Your task to perform on an android device: Open Google Maps Image 0: 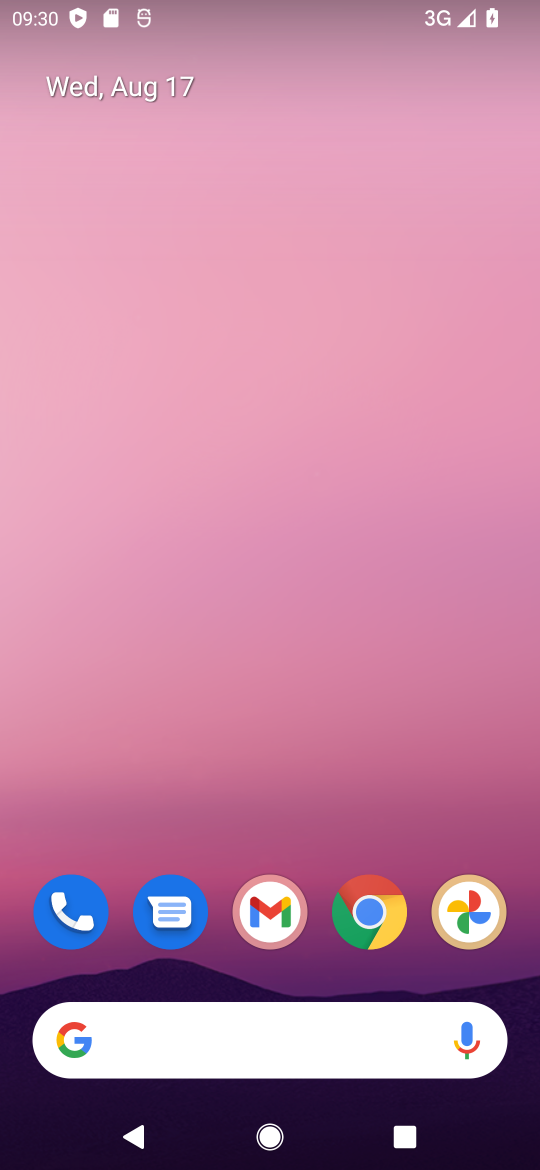
Step 0: drag from (275, 1011) to (233, 502)
Your task to perform on an android device: Open Google Maps Image 1: 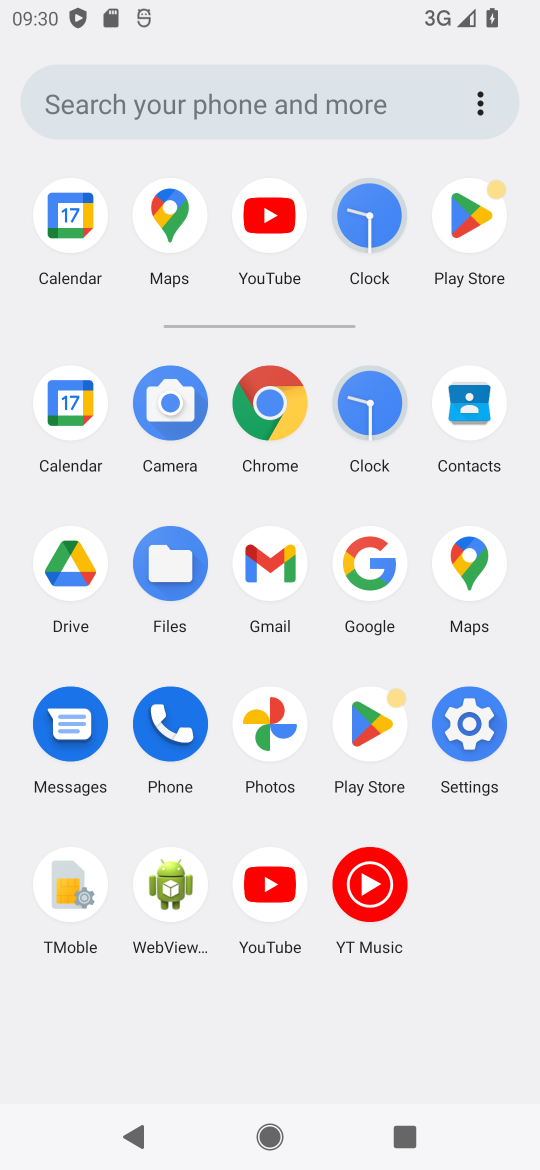
Step 1: click (462, 579)
Your task to perform on an android device: Open Google Maps Image 2: 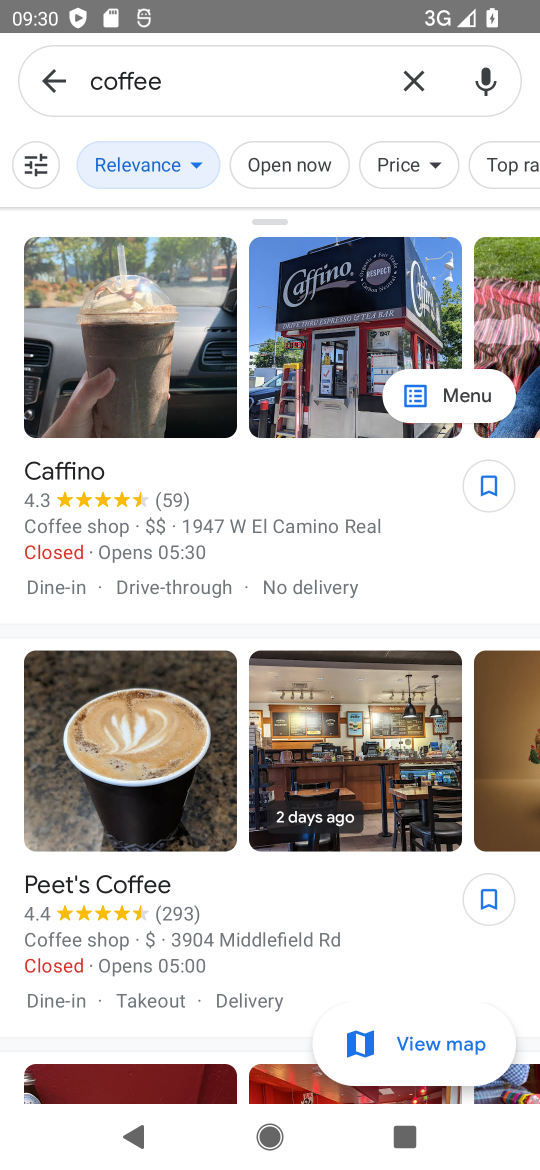
Step 2: press home button
Your task to perform on an android device: Open Google Maps Image 3: 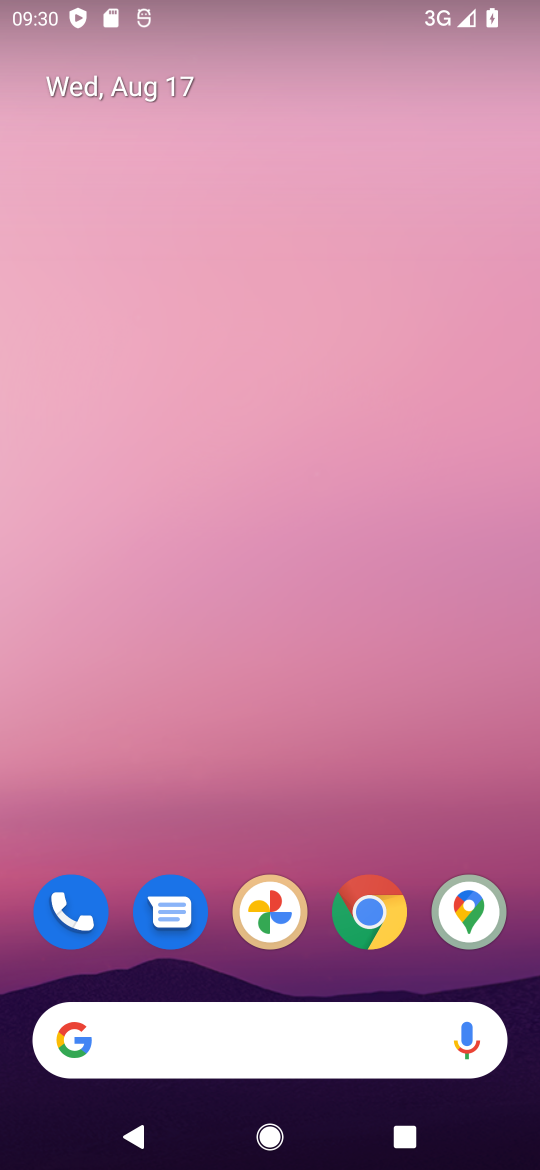
Step 3: drag from (171, 1003) to (152, 523)
Your task to perform on an android device: Open Google Maps Image 4: 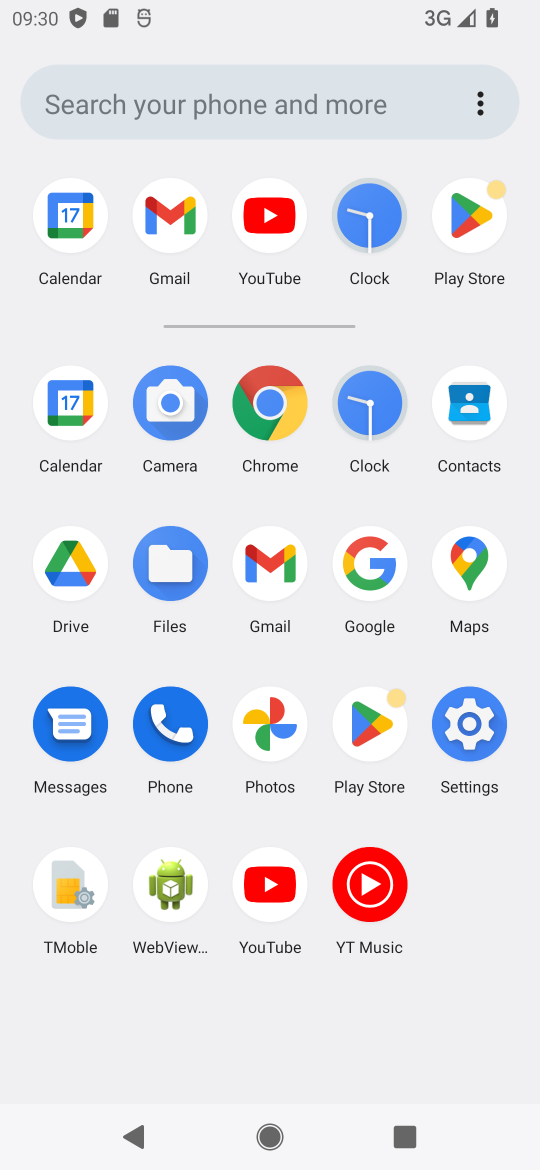
Step 4: click (468, 562)
Your task to perform on an android device: Open Google Maps Image 5: 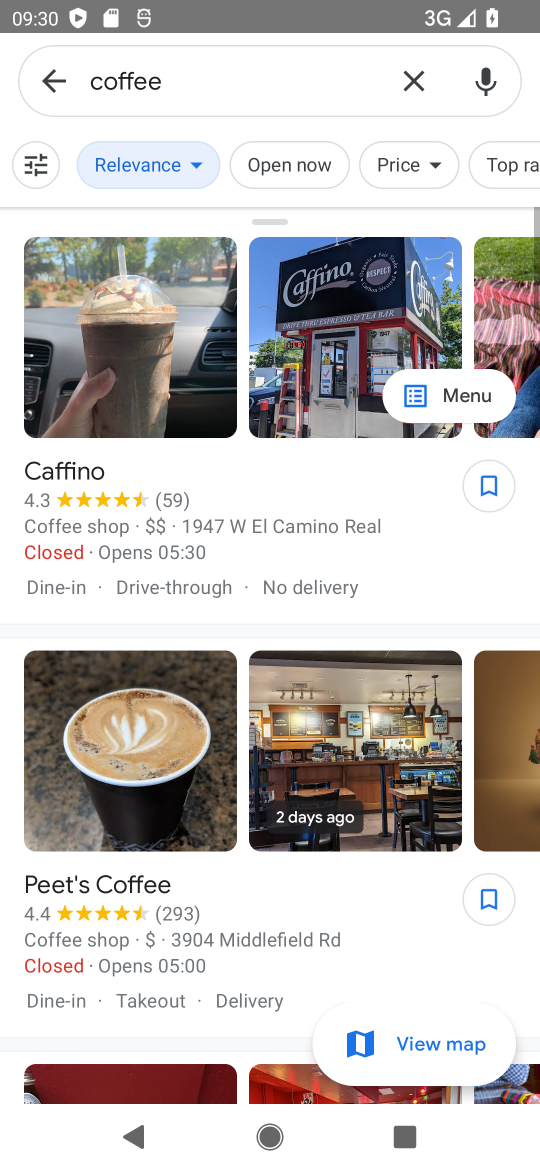
Step 5: click (414, 75)
Your task to perform on an android device: Open Google Maps Image 6: 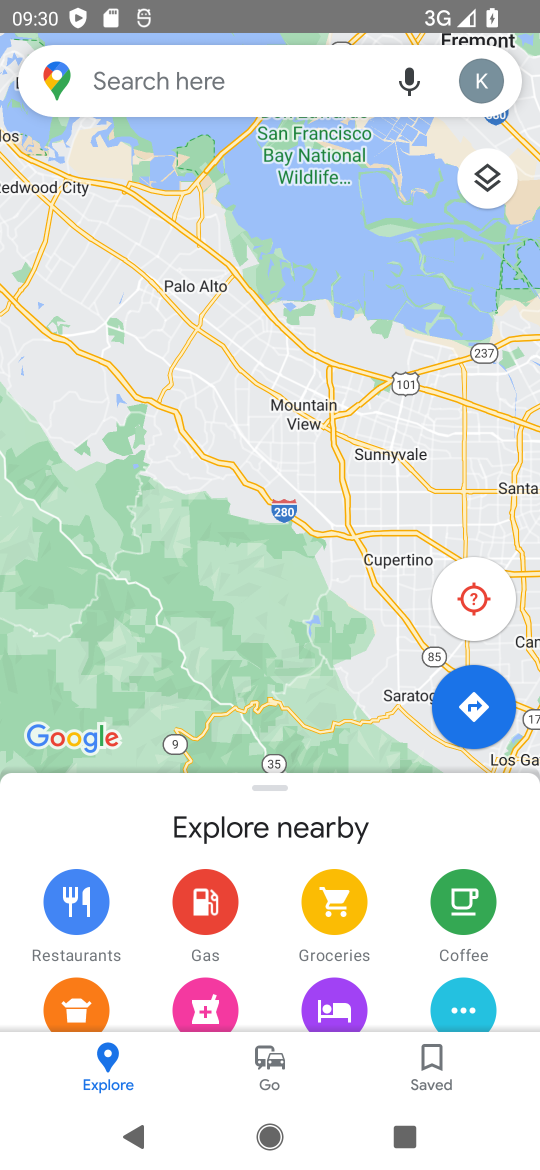
Step 6: task complete